Your task to perform on an android device: turn off airplane mode Image 0: 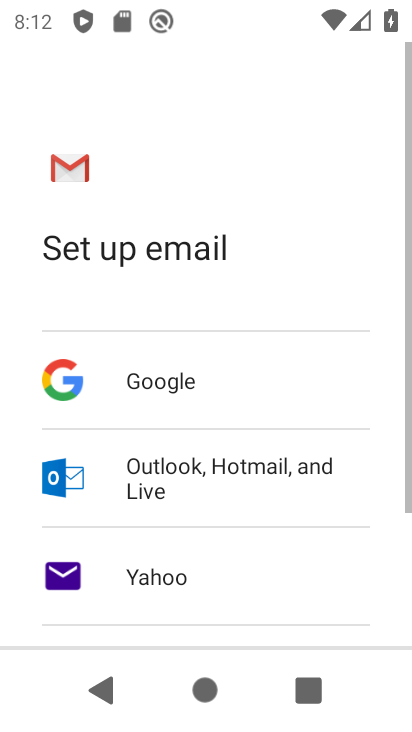
Step 0: press home button
Your task to perform on an android device: turn off airplane mode Image 1: 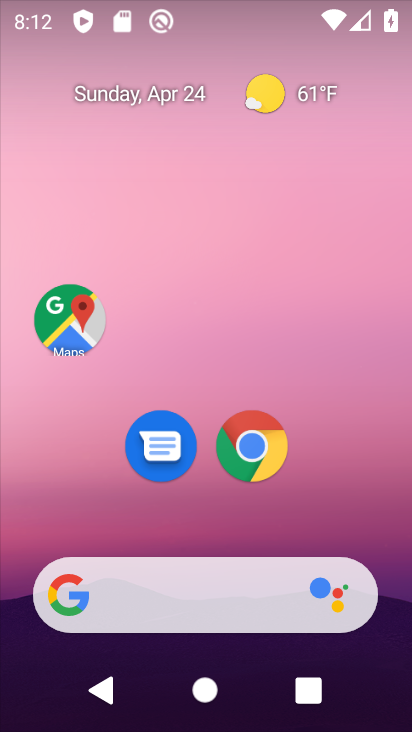
Step 1: drag from (214, 434) to (230, 262)
Your task to perform on an android device: turn off airplane mode Image 2: 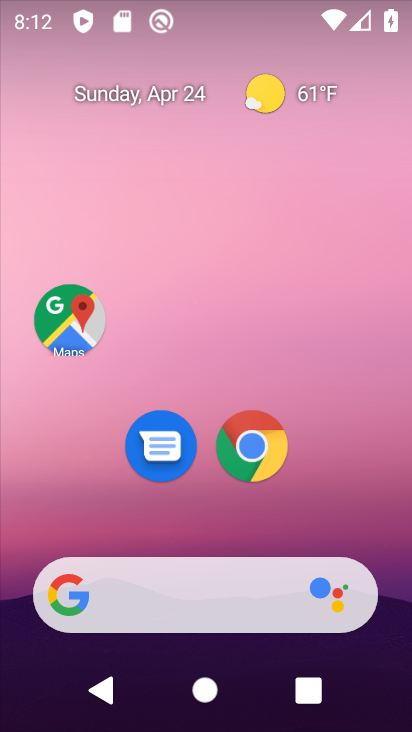
Step 2: drag from (203, 502) to (280, 34)
Your task to perform on an android device: turn off airplane mode Image 3: 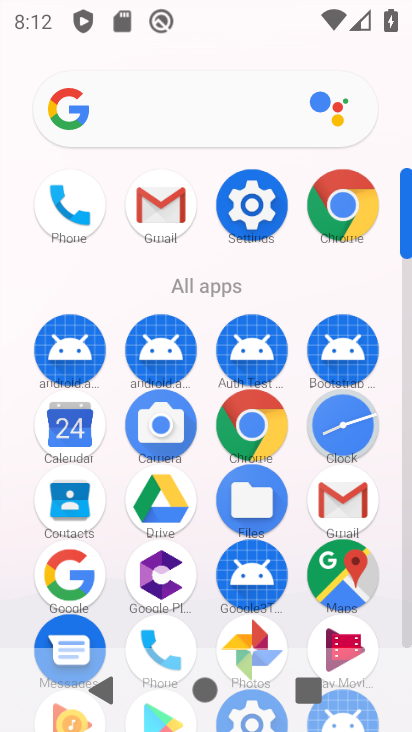
Step 3: click (260, 247)
Your task to perform on an android device: turn off airplane mode Image 4: 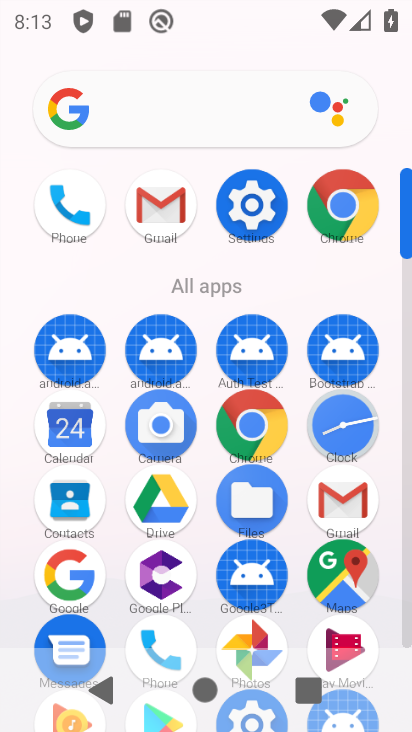
Step 4: click (264, 190)
Your task to perform on an android device: turn off airplane mode Image 5: 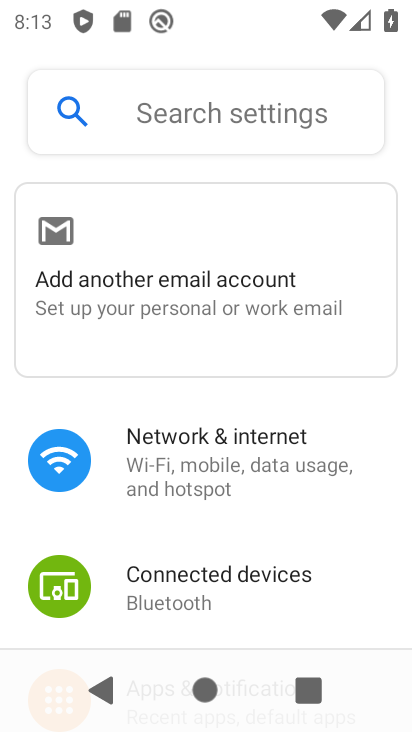
Step 5: click (209, 473)
Your task to perform on an android device: turn off airplane mode Image 6: 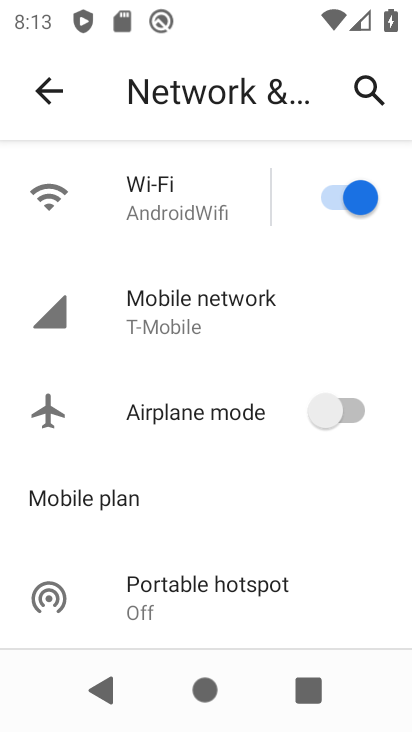
Step 6: task complete